Your task to perform on an android device: What's the weather today? Image 0: 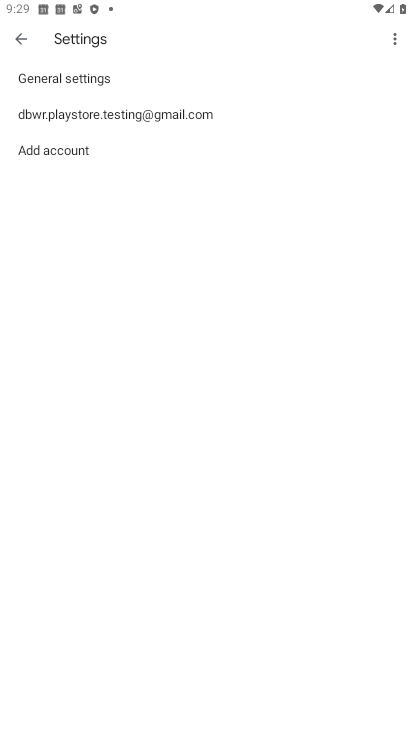
Step 0: press home button
Your task to perform on an android device: What's the weather today? Image 1: 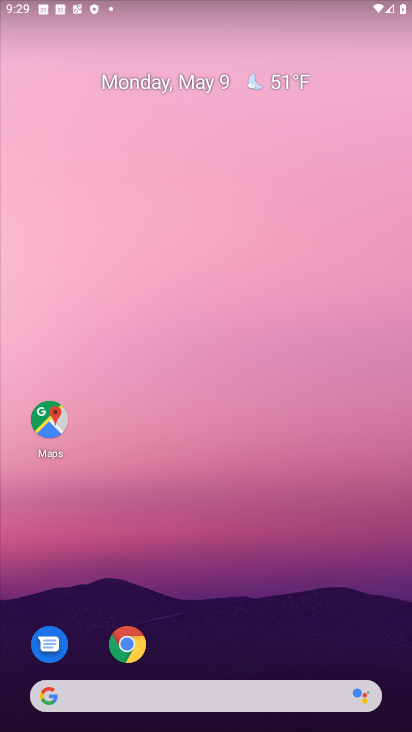
Step 1: click (190, 694)
Your task to perform on an android device: What's the weather today? Image 2: 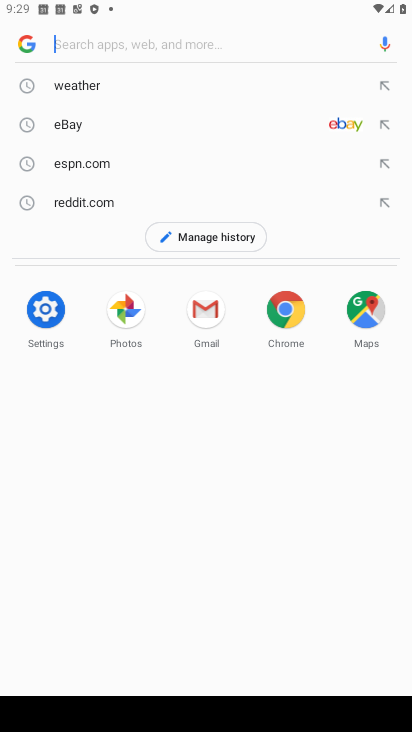
Step 2: click (70, 70)
Your task to perform on an android device: What's the weather today? Image 3: 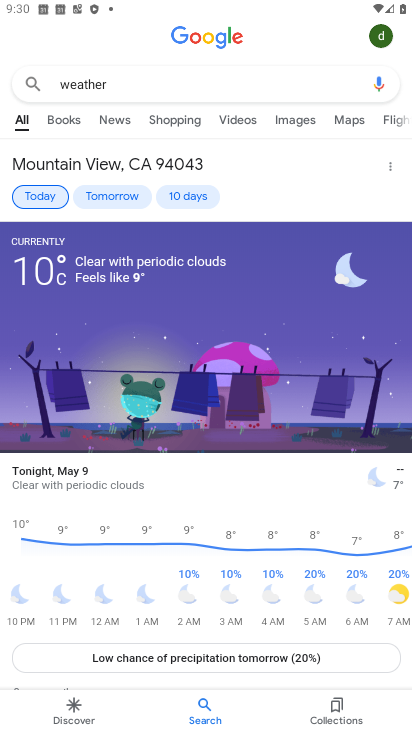
Step 3: task complete